Your task to perform on an android device: change notification settings in the gmail app Image 0: 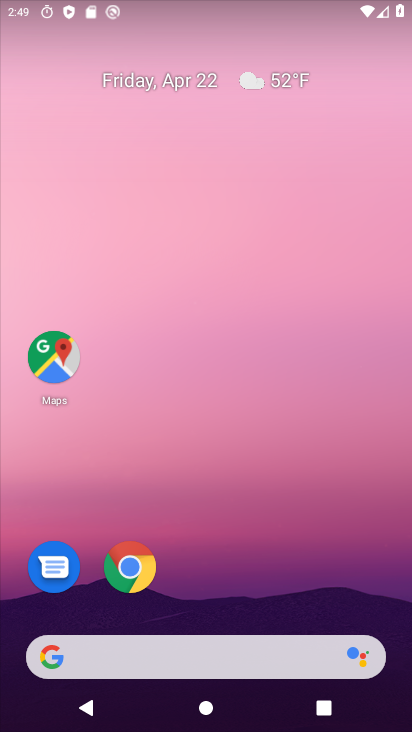
Step 0: drag from (240, 557) to (217, 51)
Your task to perform on an android device: change notification settings in the gmail app Image 1: 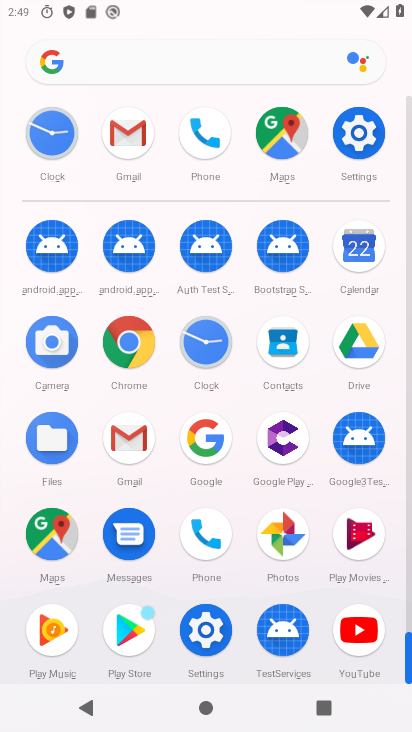
Step 1: click (132, 435)
Your task to perform on an android device: change notification settings in the gmail app Image 2: 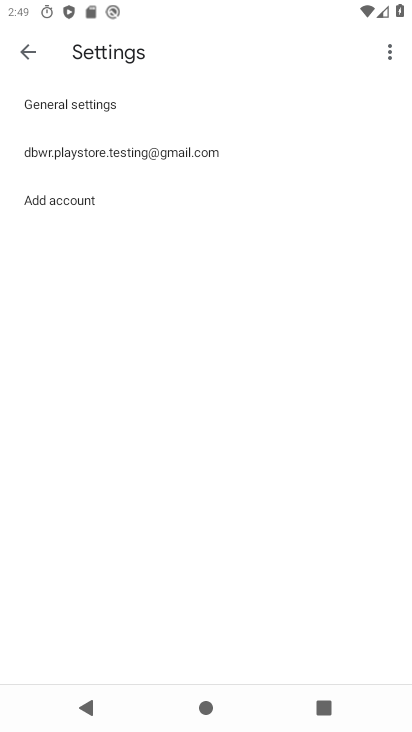
Step 2: click (147, 150)
Your task to perform on an android device: change notification settings in the gmail app Image 3: 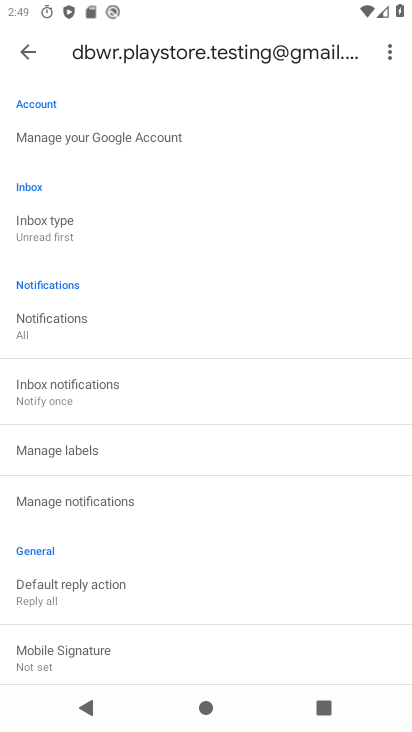
Step 3: click (107, 504)
Your task to perform on an android device: change notification settings in the gmail app Image 4: 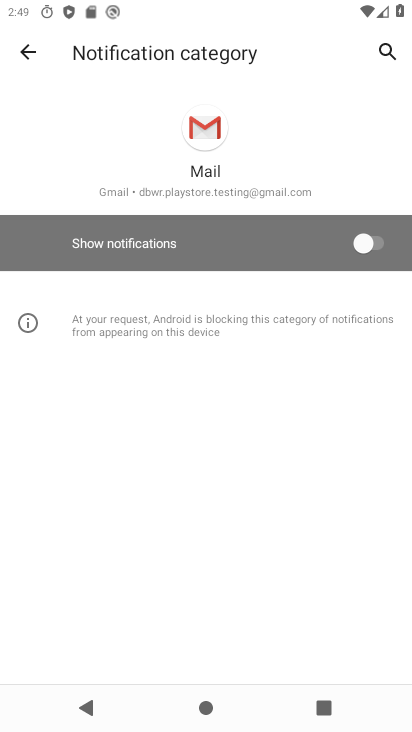
Step 4: click (361, 251)
Your task to perform on an android device: change notification settings in the gmail app Image 5: 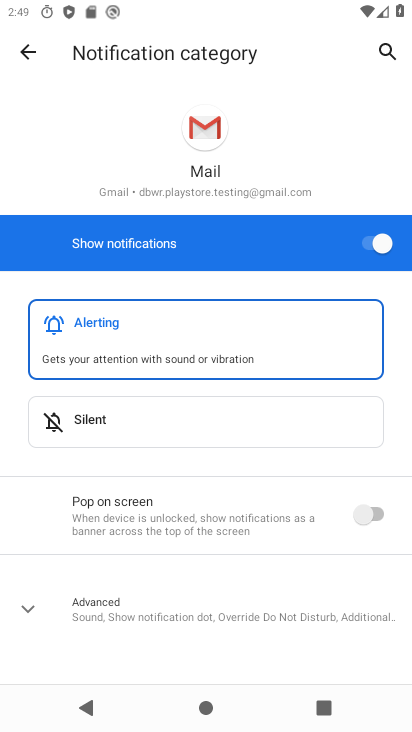
Step 5: task complete